Your task to perform on an android device: toggle location history Image 0: 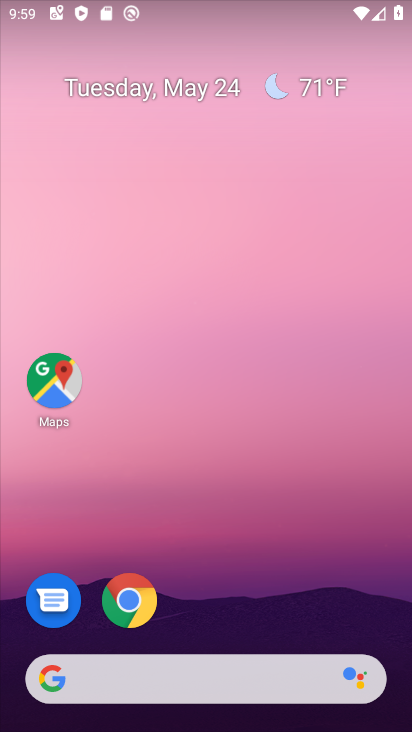
Step 0: drag from (260, 133) to (210, 0)
Your task to perform on an android device: toggle location history Image 1: 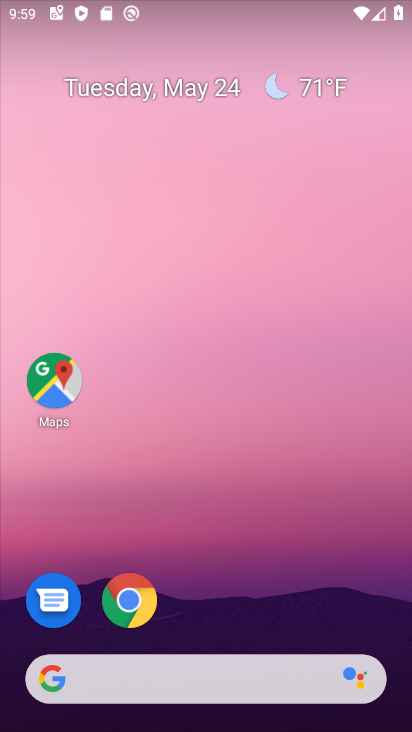
Step 1: drag from (187, 611) to (168, 13)
Your task to perform on an android device: toggle location history Image 2: 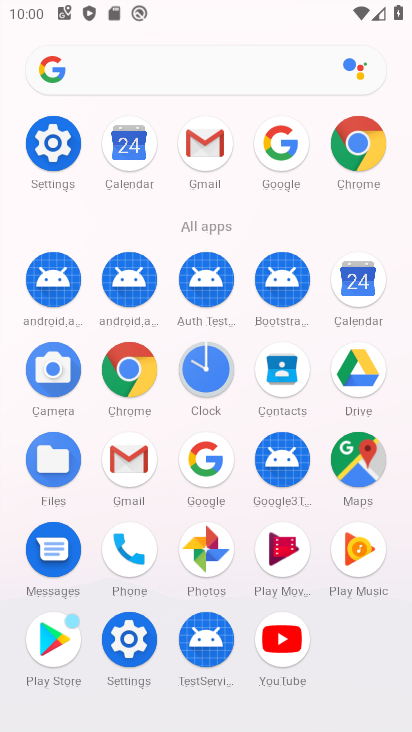
Step 2: click (116, 644)
Your task to perform on an android device: toggle location history Image 3: 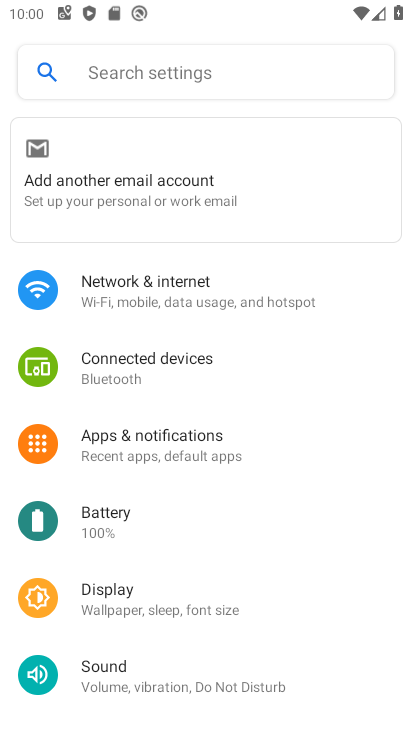
Step 3: drag from (119, 635) to (135, 457)
Your task to perform on an android device: toggle location history Image 4: 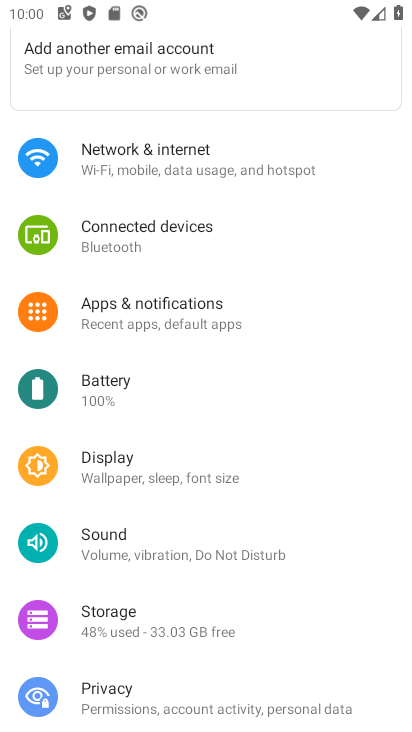
Step 4: drag from (153, 624) to (182, 362)
Your task to perform on an android device: toggle location history Image 5: 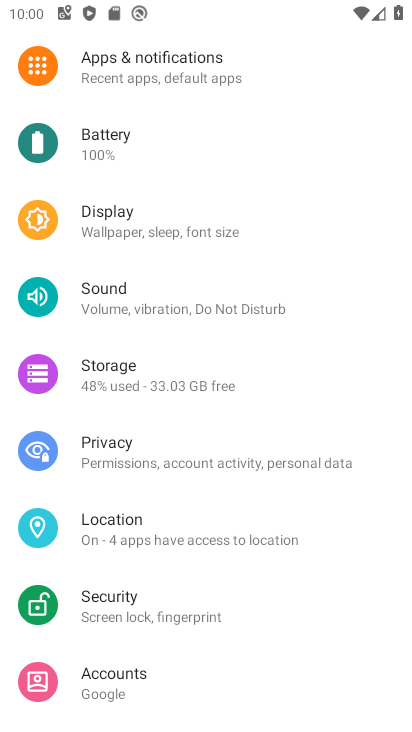
Step 5: click (158, 544)
Your task to perform on an android device: toggle location history Image 6: 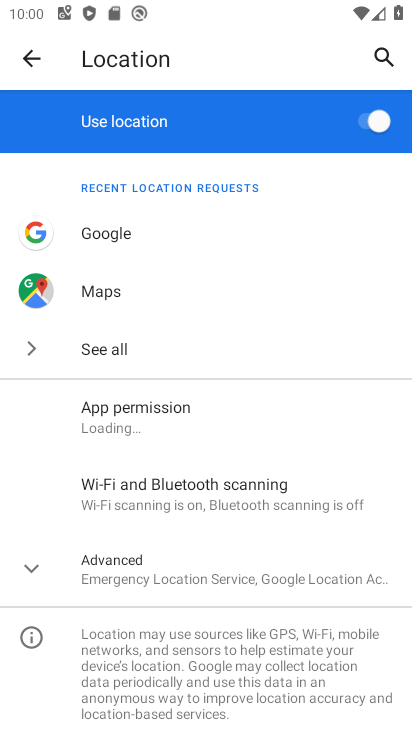
Step 6: click (145, 580)
Your task to perform on an android device: toggle location history Image 7: 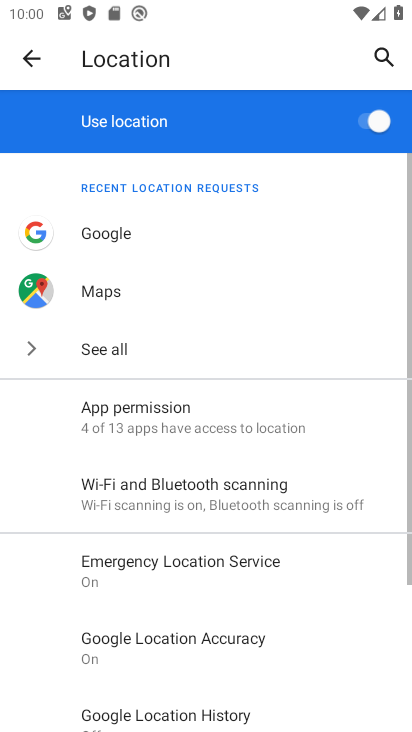
Step 7: drag from (201, 655) to (259, 361)
Your task to perform on an android device: toggle location history Image 8: 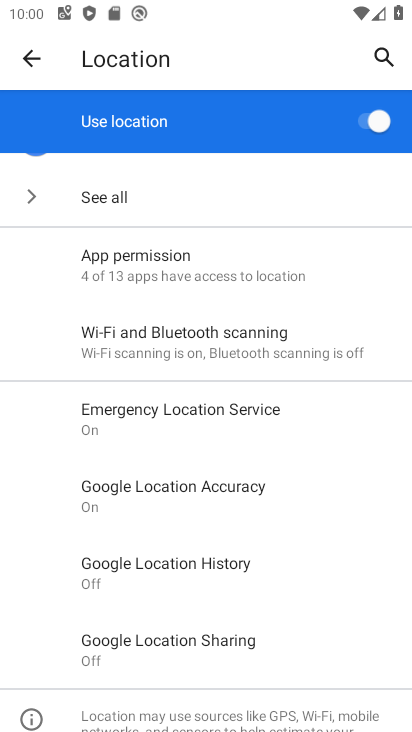
Step 8: click (158, 579)
Your task to perform on an android device: toggle location history Image 9: 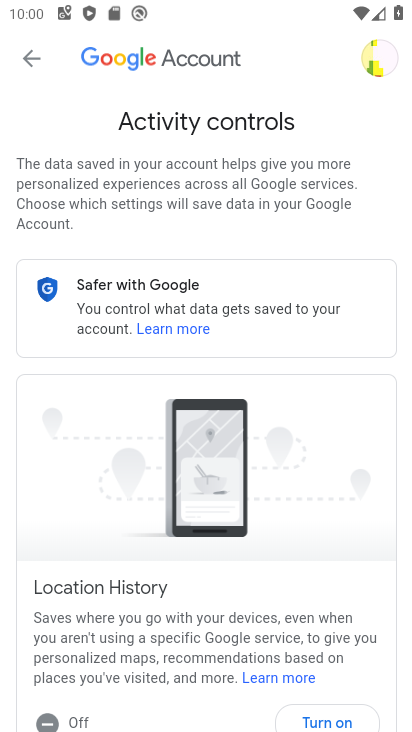
Step 9: drag from (280, 596) to (286, 241)
Your task to perform on an android device: toggle location history Image 10: 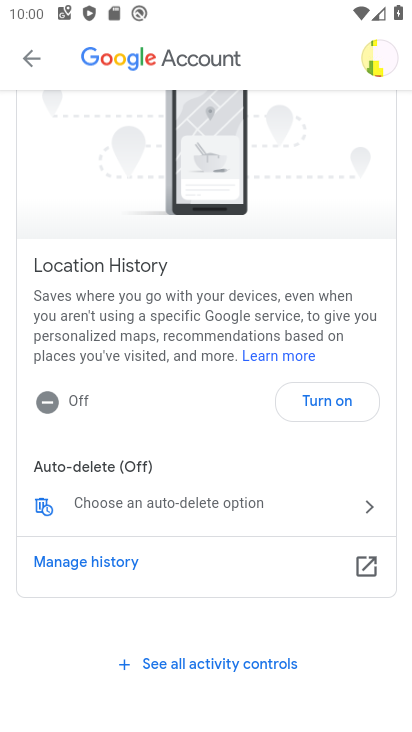
Step 10: click (326, 408)
Your task to perform on an android device: toggle location history Image 11: 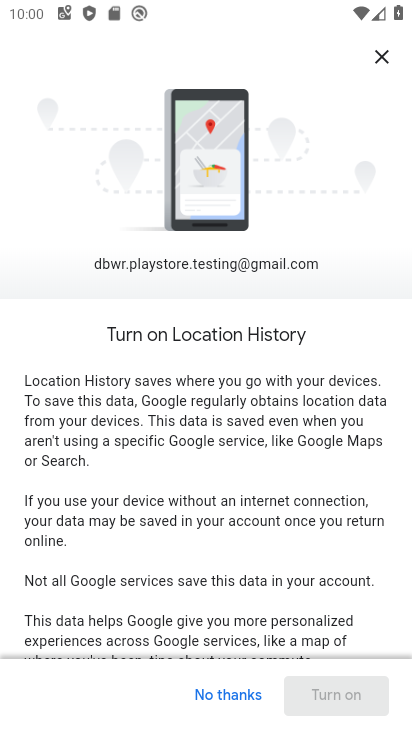
Step 11: drag from (224, 547) to (240, 89)
Your task to perform on an android device: toggle location history Image 12: 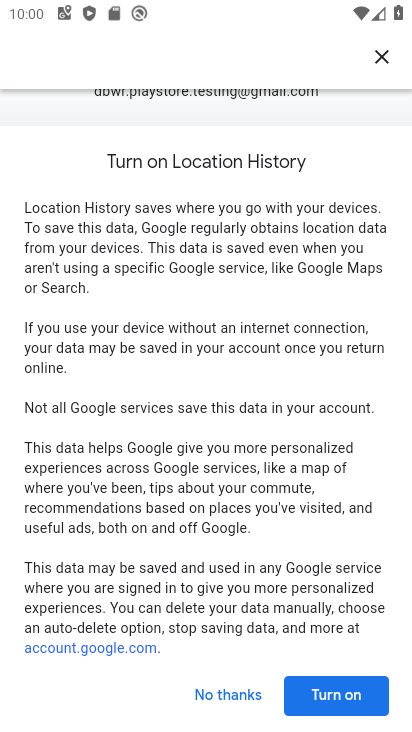
Step 12: click (331, 698)
Your task to perform on an android device: toggle location history Image 13: 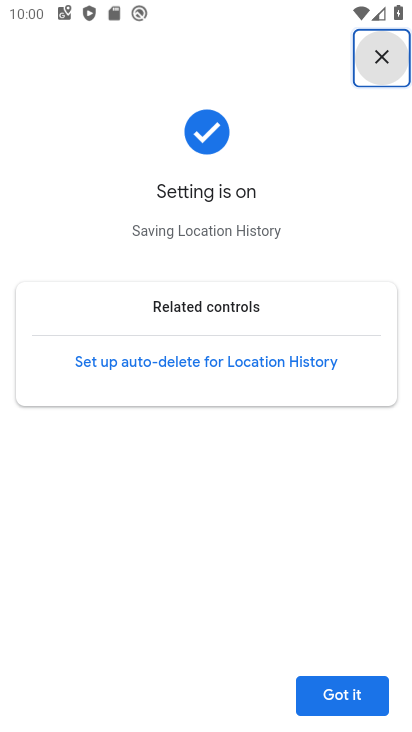
Step 13: click (351, 704)
Your task to perform on an android device: toggle location history Image 14: 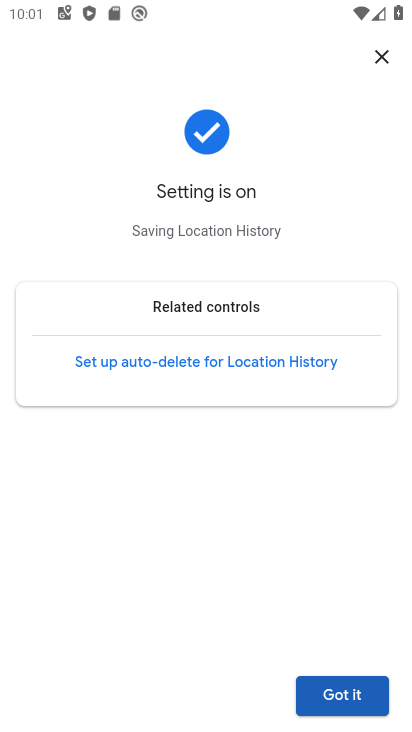
Step 14: click (324, 704)
Your task to perform on an android device: toggle location history Image 15: 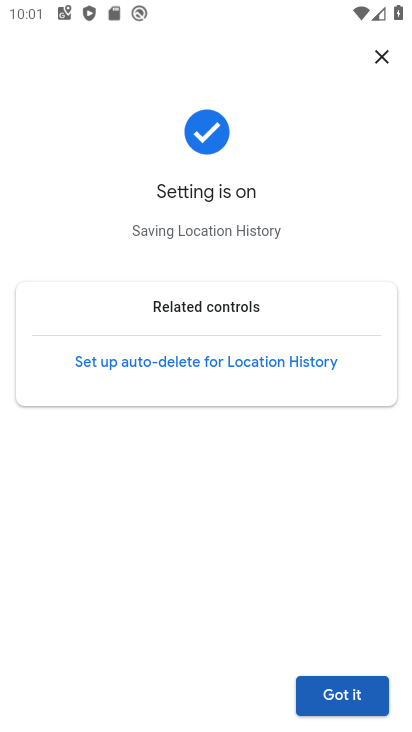
Step 15: click (349, 691)
Your task to perform on an android device: toggle location history Image 16: 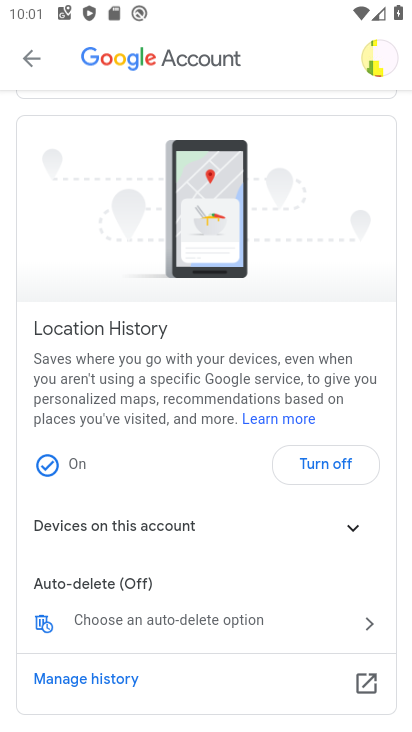
Step 16: task complete